Your task to perform on an android device: Open privacy settings Image 0: 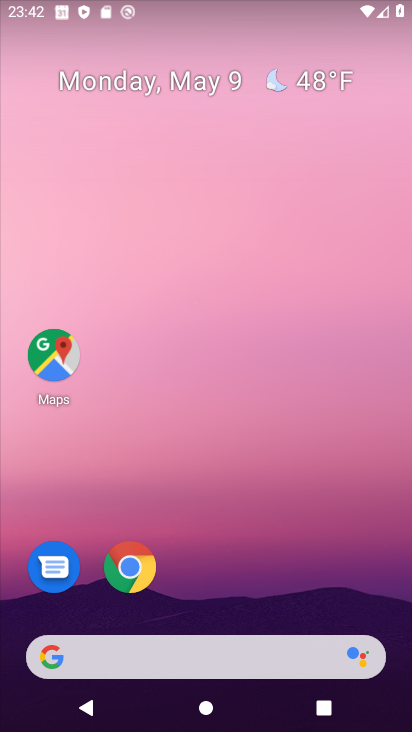
Step 0: drag from (256, 556) to (385, 5)
Your task to perform on an android device: Open privacy settings Image 1: 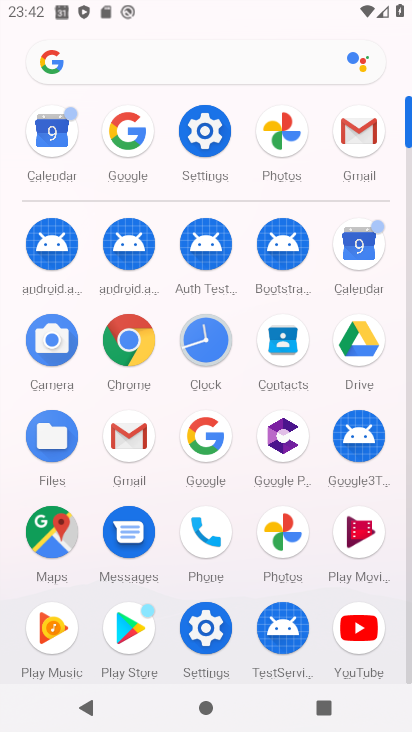
Step 1: click (205, 625)
Your task to perform on an android device: Open privacy settings Image 2: 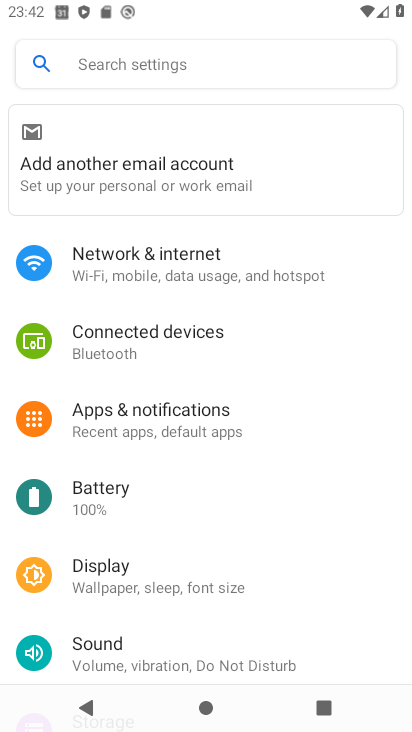
Step 2: drag from (203, 500) to (219, 371)
Your task to perform on an android device: Open privacy settings Image 3: 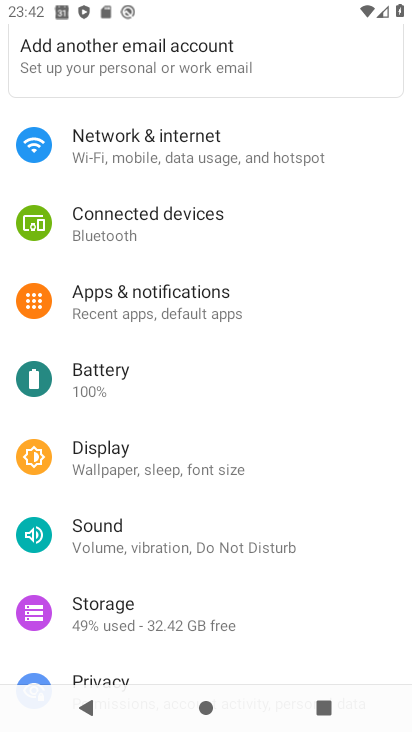
Step 3: drag from (145, 504) to (194, 367)
Your task to perform on an android device: Open privacy settings Image 4: 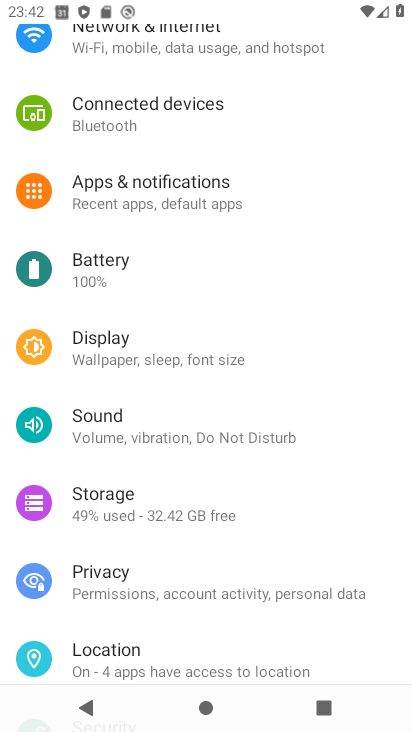
Step 4: drag from (112, 535) to (174, 390)
Your task to perform on an android device: Open privacy settings Image 5: 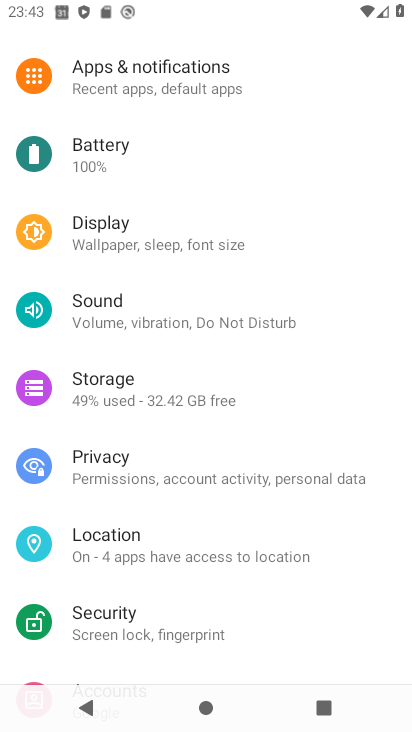
Step 5: click (88, 456)
Your task to perform on an android device: Open privacy settings Image 6: 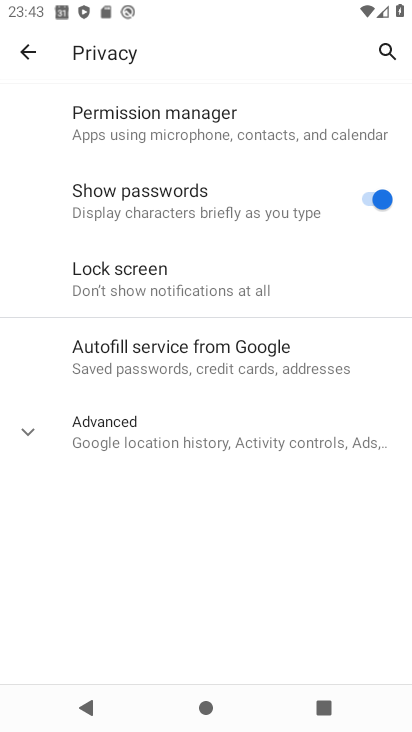
Step 6: task complete